Your task to perform on an android device: turn pop-ups off in chrome Image 0: 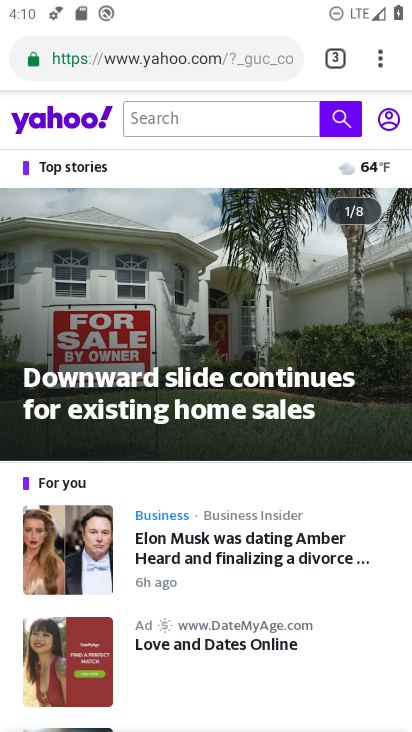
Step 0: drag from (378, 61) to (163, 627)
Your task to perform on an android device: turn pop-ups off in chrome Image 1: 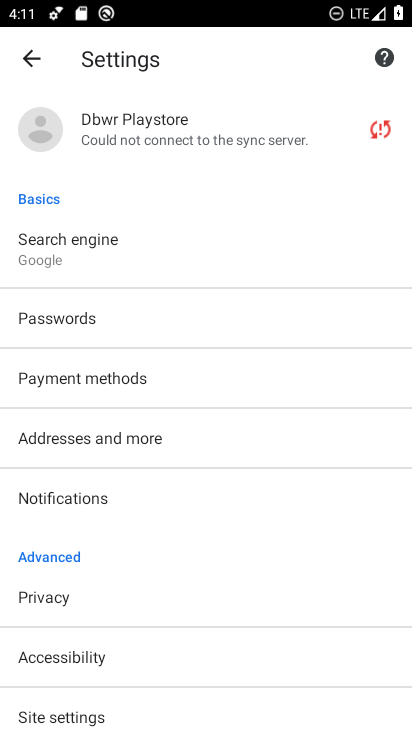
Step 1: click (66, 712)
Your task to perform on an android device: turn pop-ups off in chrome Image 2: 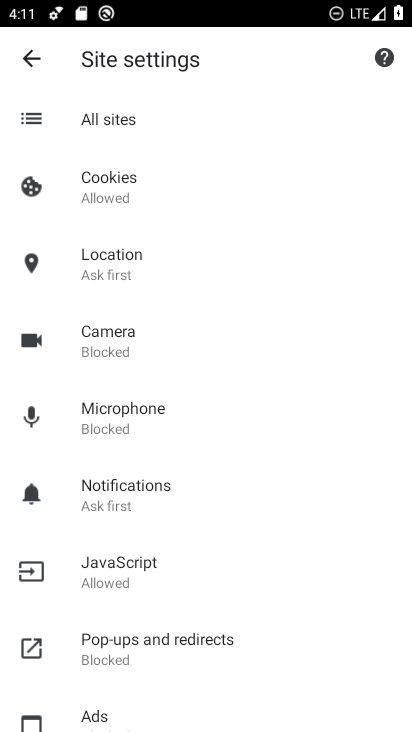
Step 2: click (117, 640)
Your task to perform on an android device: turn pop-ups off in chrome Image 3: 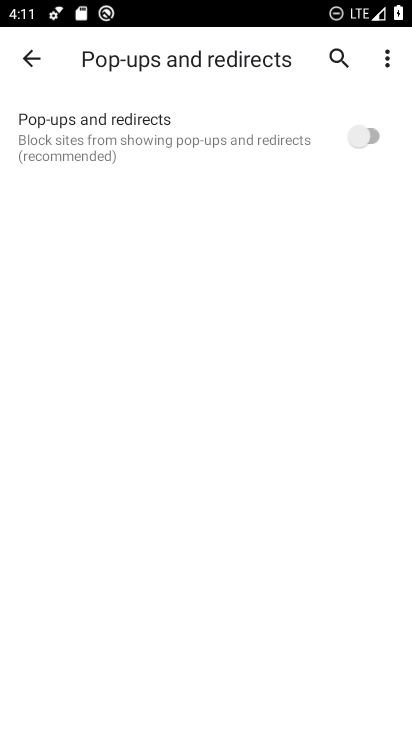
Step 3: task complete